Your task to perform on an android device: remove spam from my inbox in the gmail app Image 0: 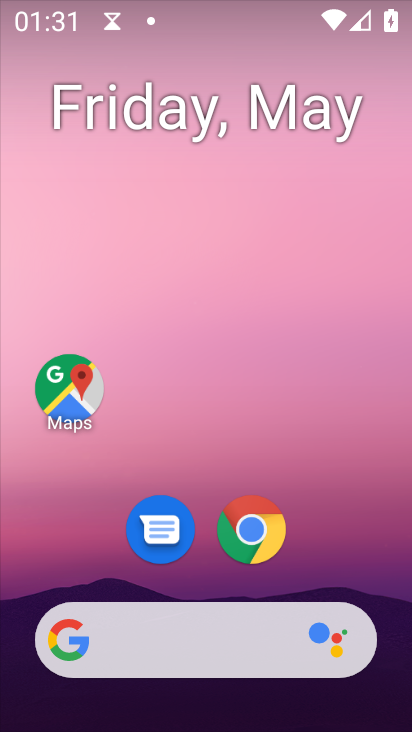
Step 0: drag from (371, 444) to (409, 200)
Your task to perform on an android device: remove spam from my inbox in the gmail app Image 1: 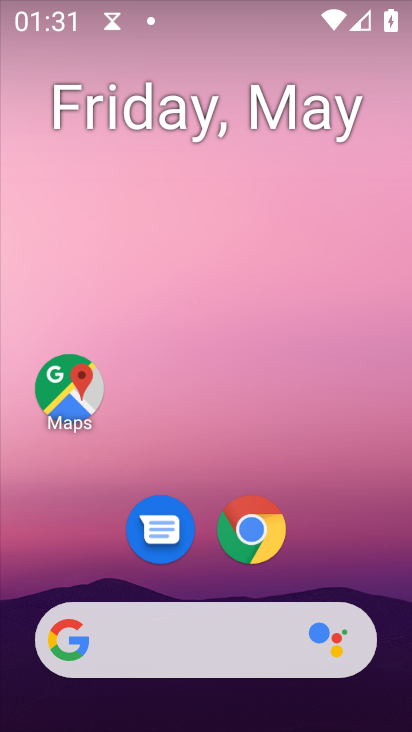
Step 1: drag from (322, 557) to (300, 231)
Your task to perform on an android device: remove spam from my inbox in the gmail app Image 2: 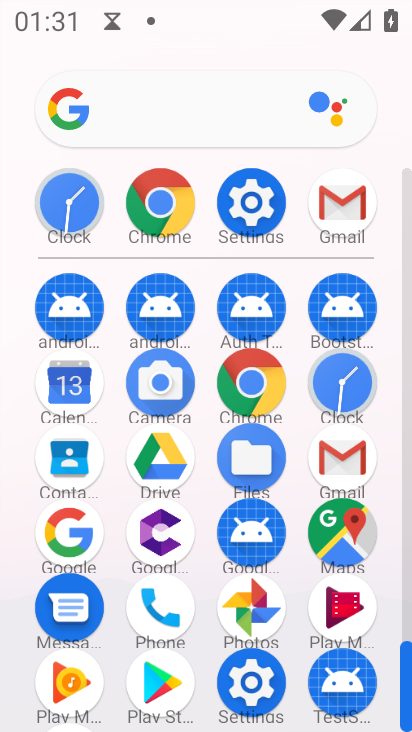
Step 2: click (345, 465)
Your task to perform on an android device: remove spam from my inbox in the gmail app Image 3: 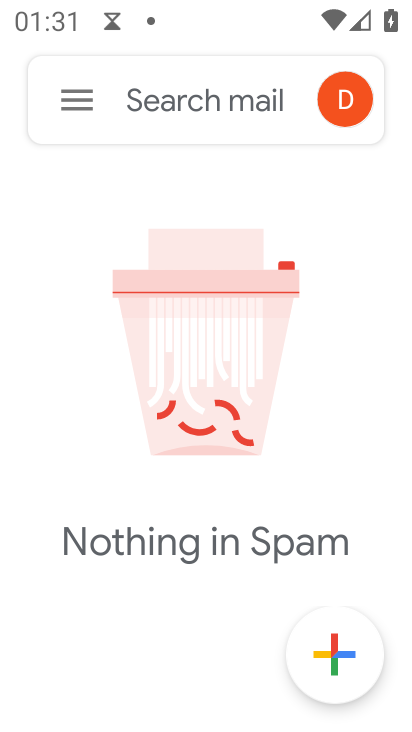
Step 3: click (59, 95)
Your task to perform on an android device: remove spam from my inbox in the gmail app Image 4: 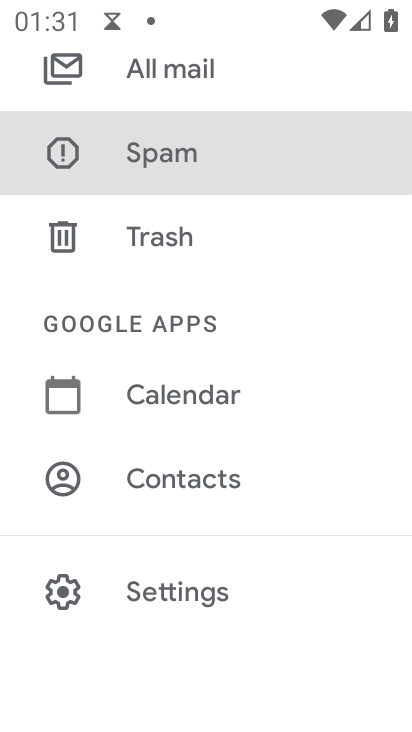
Step 4: click (165, 151)
Your task to perform on an android device: remove spam from my inbox in the gmail app Image 5: 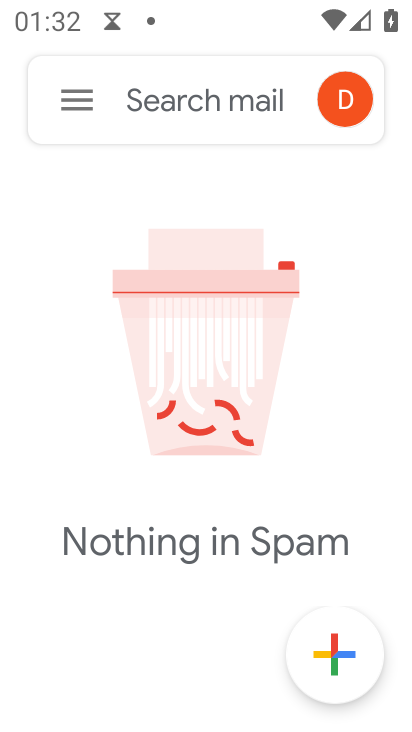
Step 5: task complete